Your task to perform on an android device: Go to notification settings Image 0: 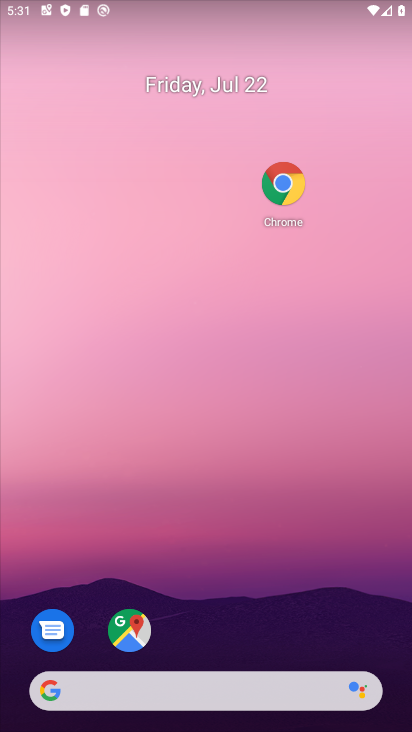
Step 0: drag from (209, 615) to (212, 142)
Your task to perform on an android device: Go to notification settings Image 1: 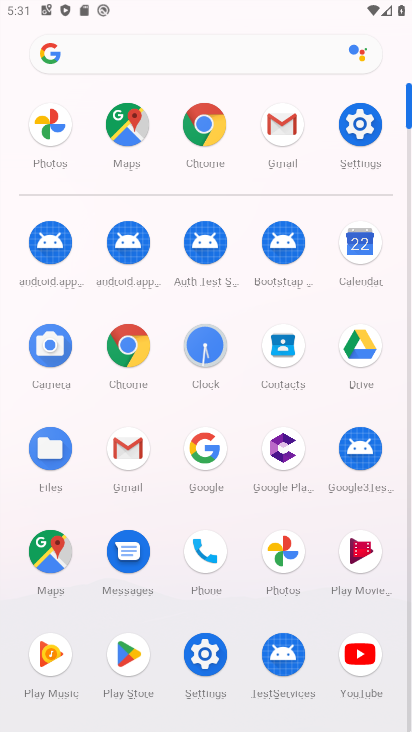
Step 1: drag from (201, 575) to (267, 73)
Your task to perform on an android device: Go to notification settings Image 2: 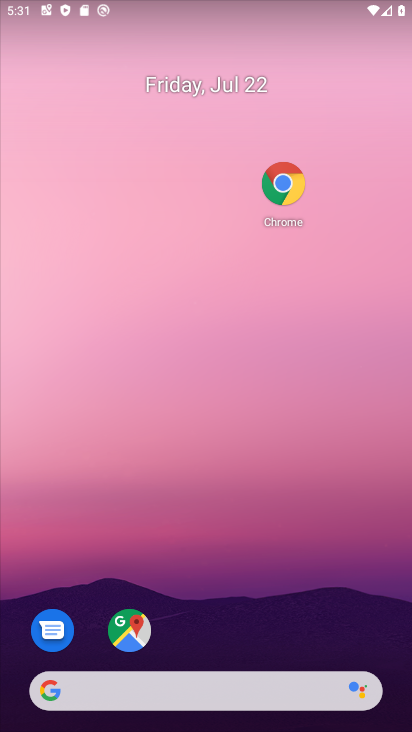
Step 2: click (360, 145)
Your task to perform on an android device: Go to notification settings Image 3: 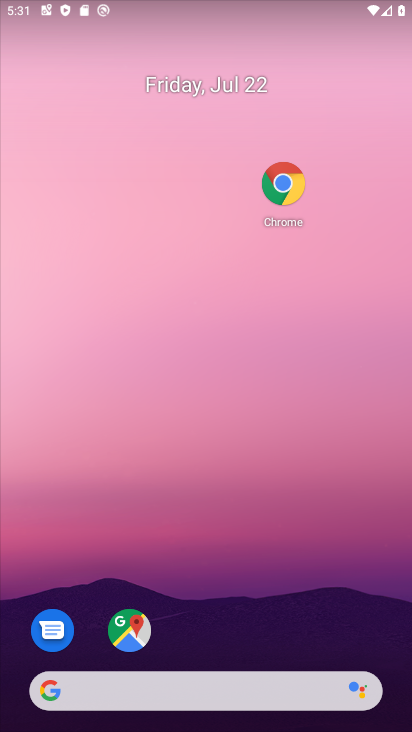
Step 3: drag from (180, 630) to (225, 50)
Your task to perform on an android device: Go to notification settings Image 4: 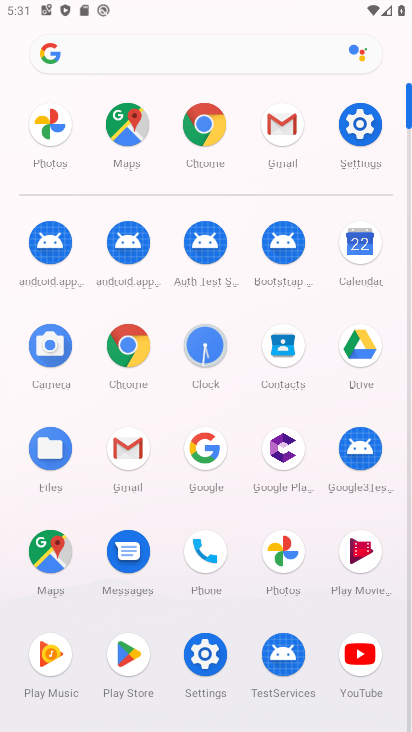
Step 4: click (353, 176)
Your task to perform on an android device: Go to notification settings Image 5: 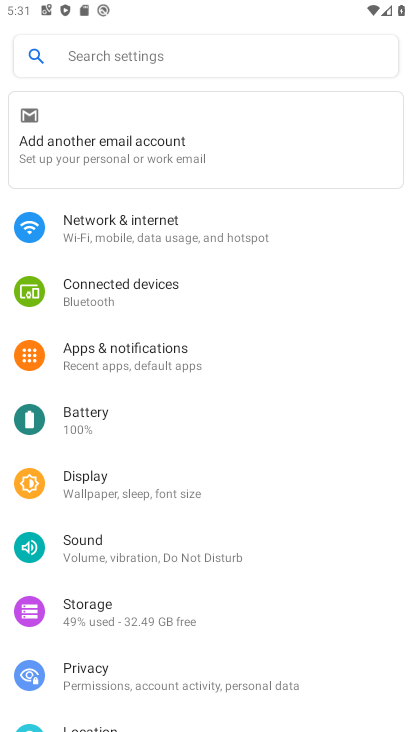
Step 5: click (122, 347)
Your task to perform on an android device: Go to notification settings Image 6: 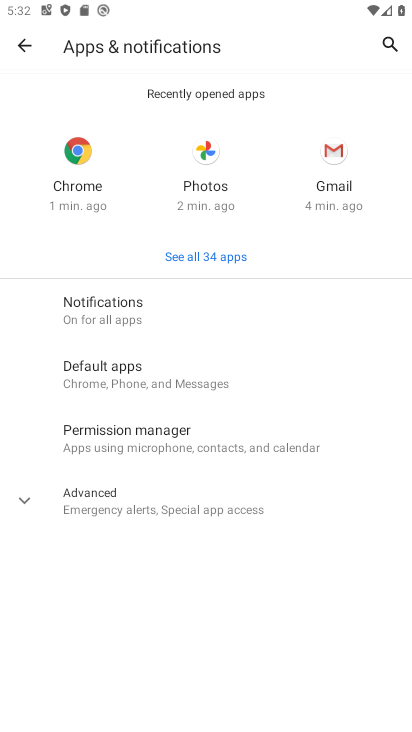
Step 6: task complete